Your task to perform on an android device: Open the calendar and show me this week's events? Image 0: 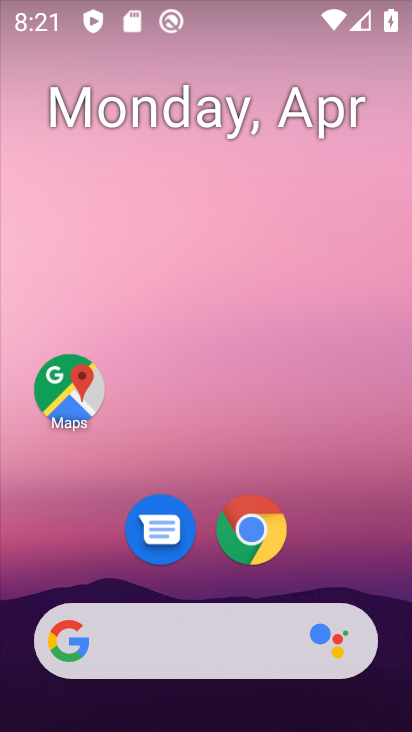
Step 0: drag from (351, 547) to (313, 154)
Your task to perform on an android device: Open the calendar and show me this week's events? Image 1: 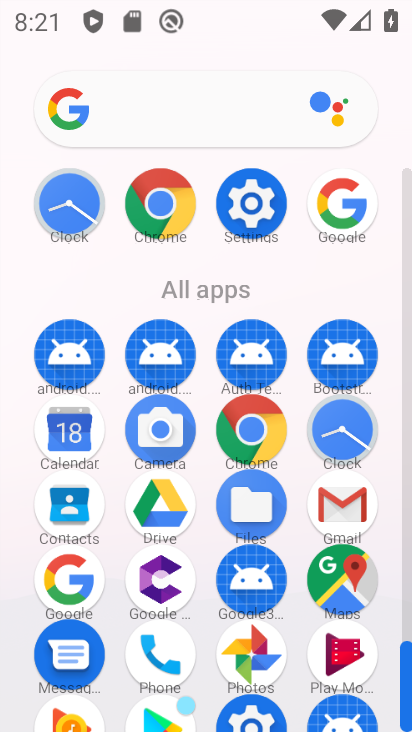
Step 1: click (62, 435)
Your task to perform on an android device: Open the calendar and show me this week's events? Image 2: 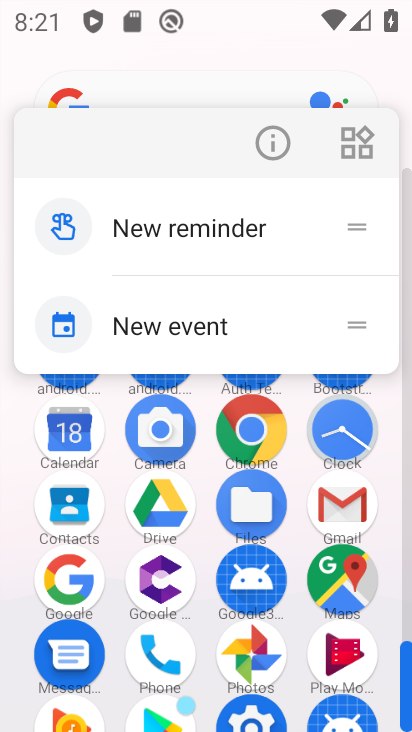
Step 2: click (68, 435)
Your task to perform on an android device: Open the calendar and show me this week's events? Image 3: 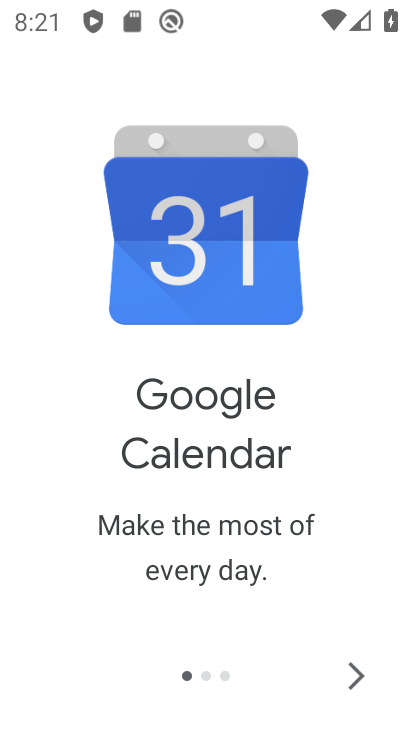
Step 3: click (351, 662)
Your task to perform on an android device: Open the calendar and show me this week's events? Image 4: 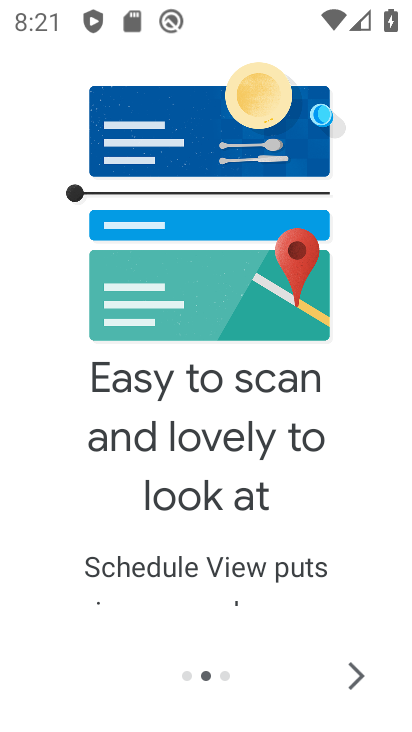
Step 4: click (351, 662)
Your task to perform on an android device: Open the calendar and show me this week's events? Image 5: 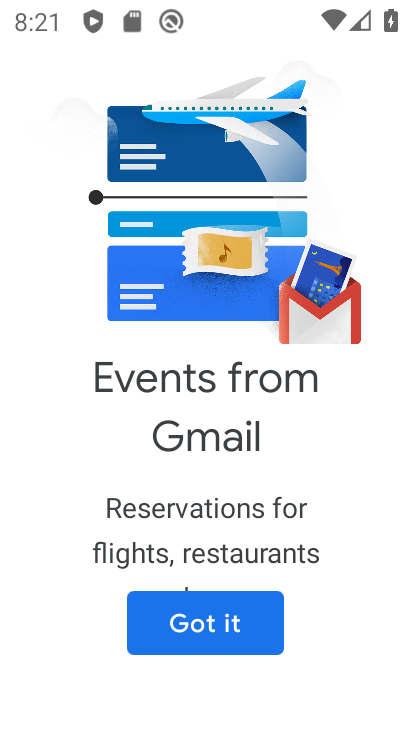
Step 5: click (218, 624)
Your task to perform on an android device: Open the calendar and show me this week's events? Image 6: 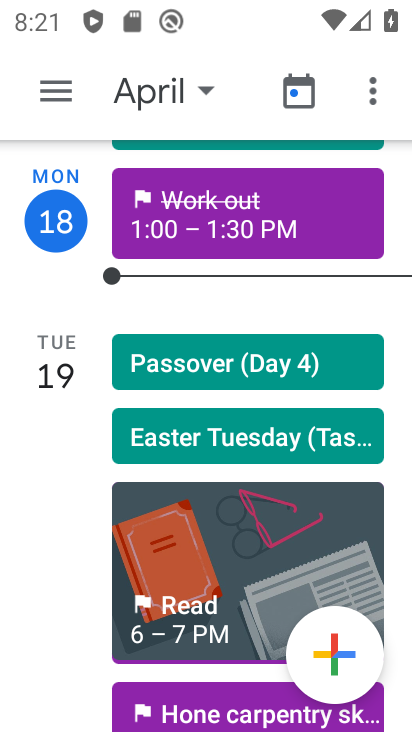
Step 6: drag from (72, 623) to (65, 348)
Your task to perform on an android device: Open the calendar and show me this week's events? Image 7: 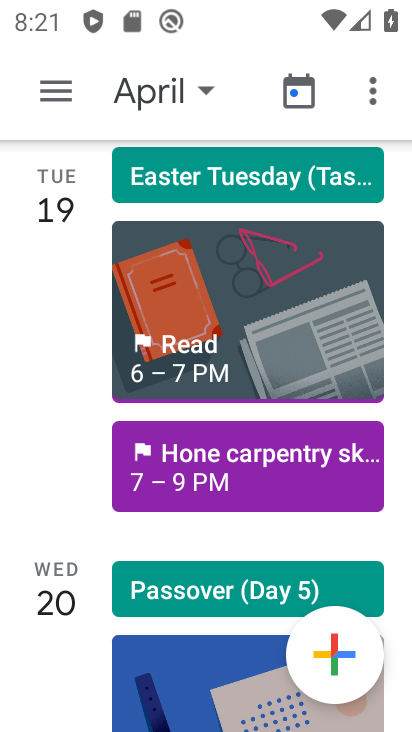
Step 7: click (148, 89)
Your task to perform on an android device: Open the calendar and show me this week's events? Image 8: 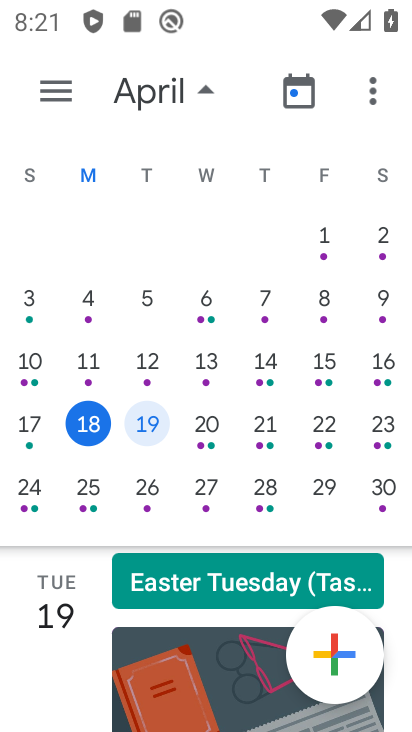
Step 8: click (90, 419)
Your task to perform on an android device: Open the calendar and show me this week's events? Image 9: 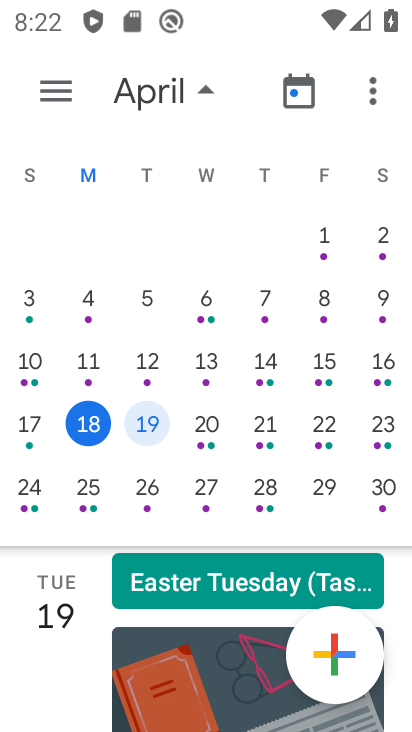
Step 9: click (92, 425)
Your task to perform on an android device: Open the calendar and show me this week's events? Image 10: 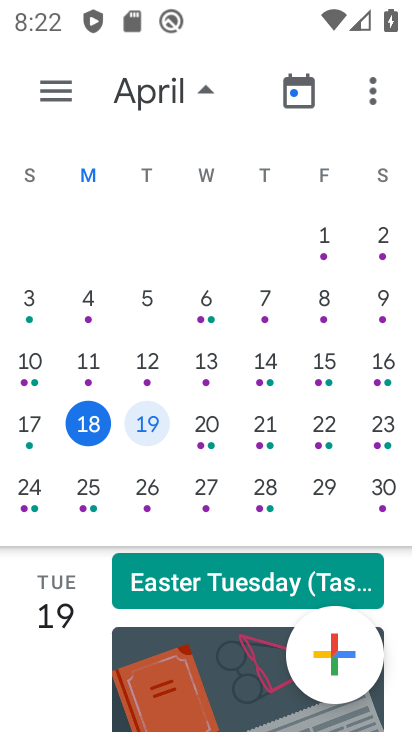
Step 10: click (155, 431)
Your task to perform on an android device: Open the calendar and show me this week's events? Image 11: 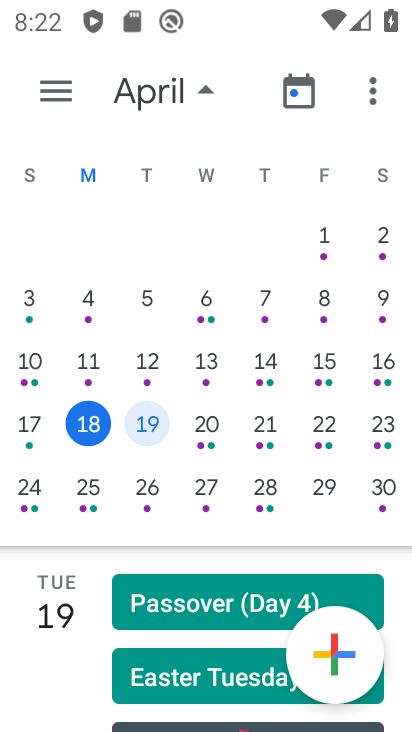
Step 11: task complete